Your task to perform on an android device: Clear all items from cart on newegg.com. Search for "duracell triple a" on newegg.com, select the first entry, and add it to the cart. Image 0: 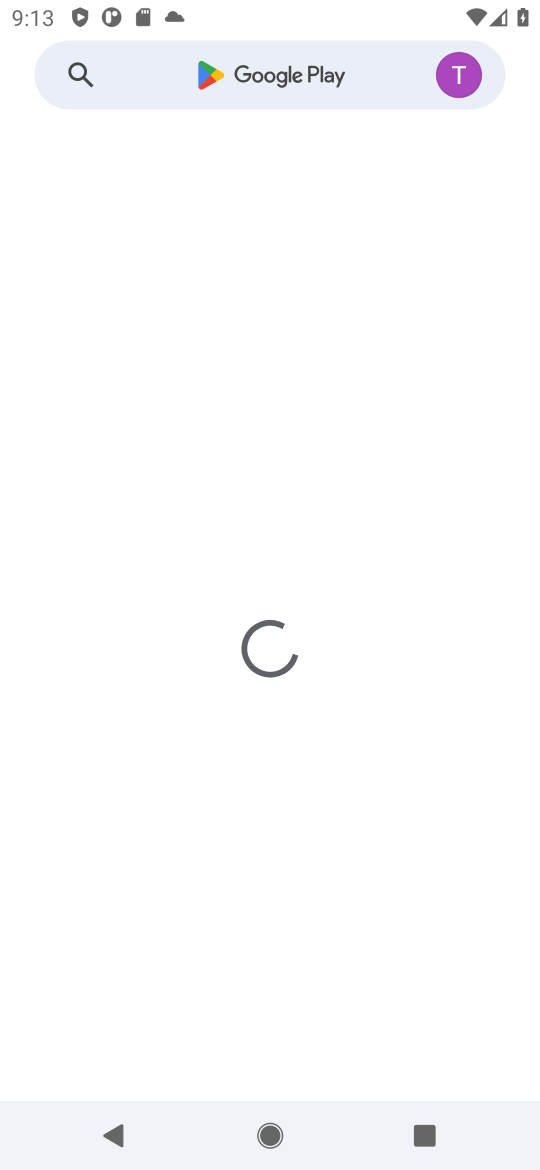
Step 0: press home button
Your task to perform on an android device: Clear all items from cart on newegg.com. Search for "duracell triple a" on newegg.com, select the first entry, and add it to the cart. Image 1: 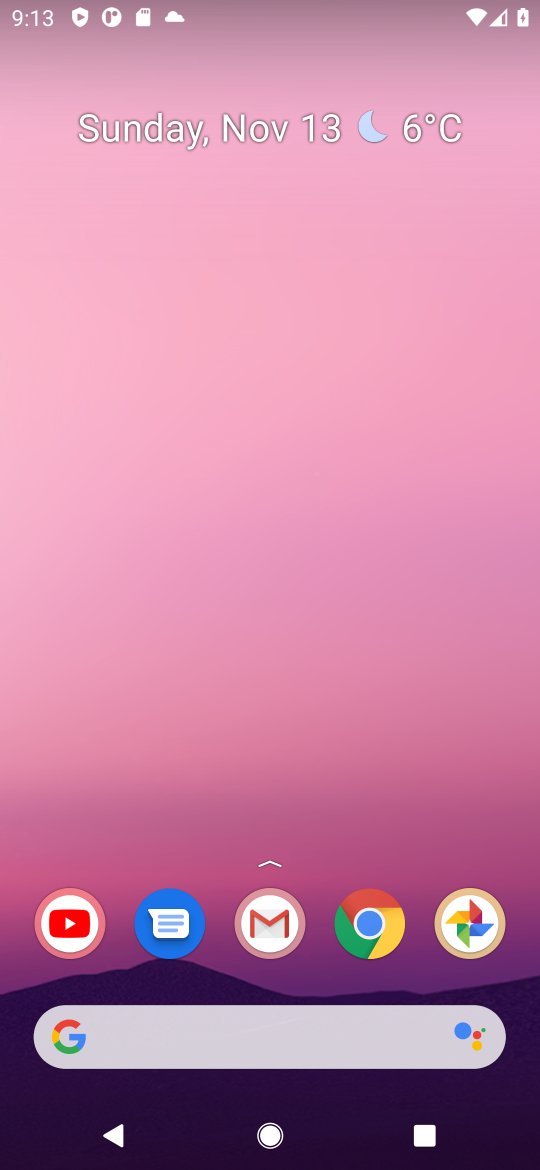
Step 1: click (358, 917)
Your task to perform on an android device: Clear all items from cart on newegg.com. Search for "duracell triple a" on newegg.com, select the first entry, and add it to the cart. Image 2: 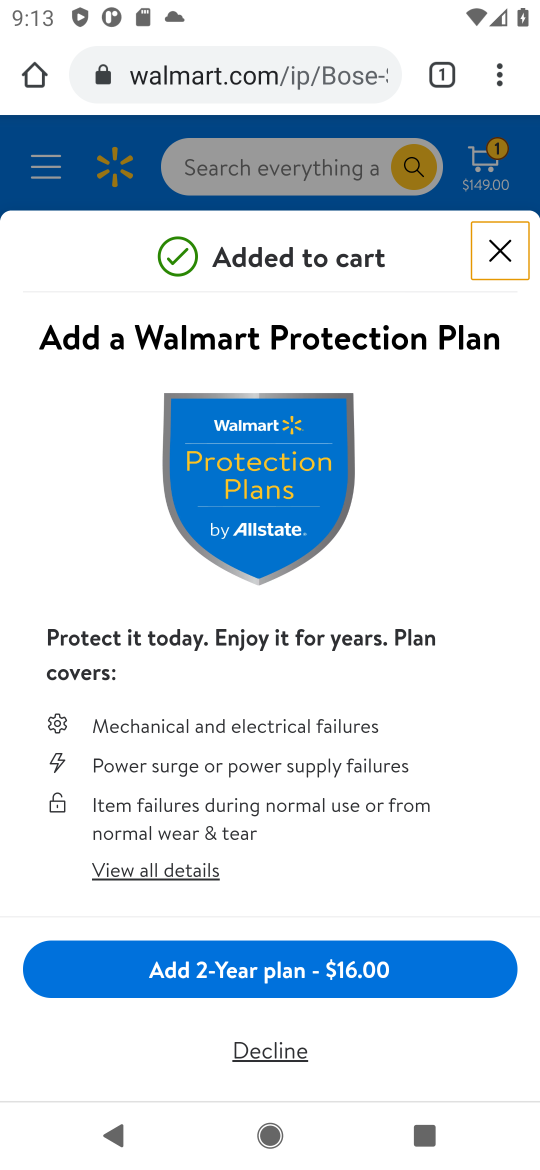
Step 2: click (313, 73)
Your task to perform on an android device: Clear all items from cart on newegg.com. Search for "duracell triple a" on newegg.com, select the first entry, and add it to the cart. Image 3: 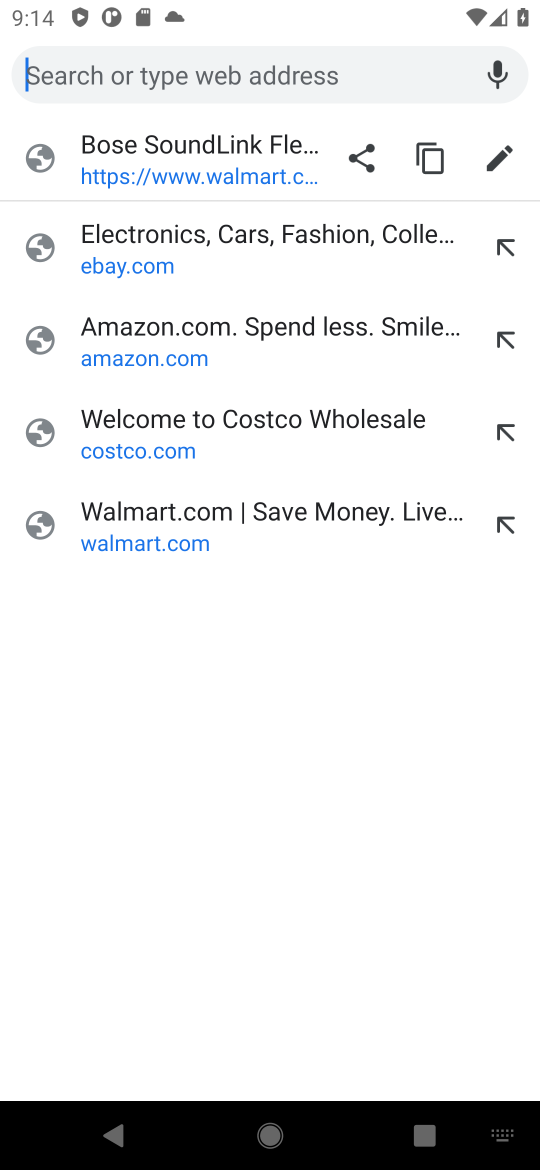
Step 3: type "newegg.com"
Your task to perform on an android device: Clear all items from cart on newegg.com. Search for "duracell triple a" on newegg.com, select the first entry, and add it to the cart. Image 4: 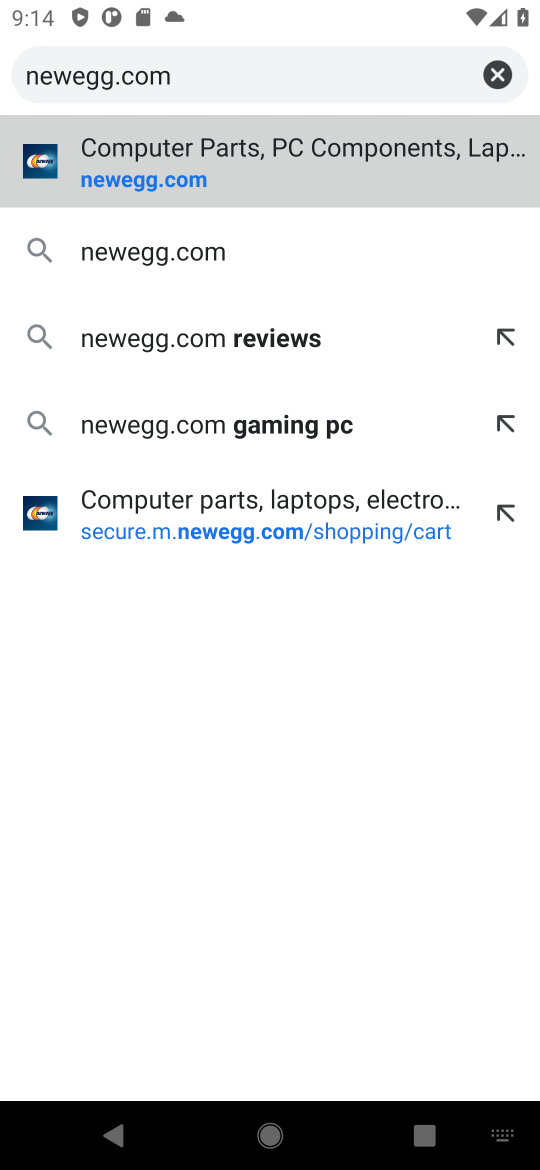
Step 4: press enter
Your task to perform on an android device: Clear all items from cart on newegg.com. Search for "duracell triple a" on newegg.com, select the first entry, and add it to the cart. Image 5: 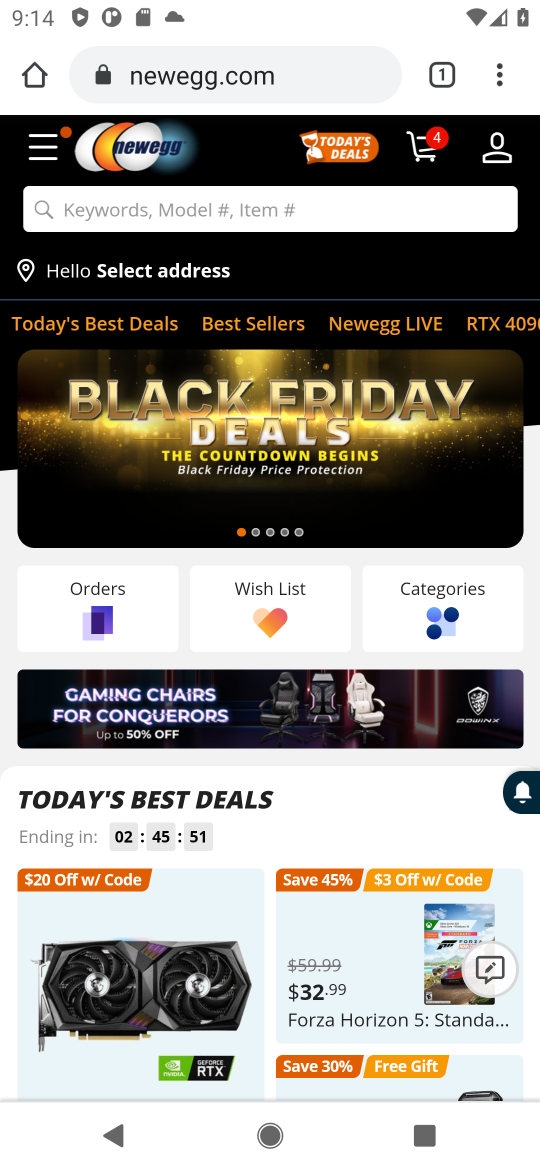
Step 5: click (420, 144)
Your task to perform on an android device: Clear all items from cart on newegg.com. Search for "duracell triple a" on newegg.com, select the first entry, and add it to the cart. Image 6: 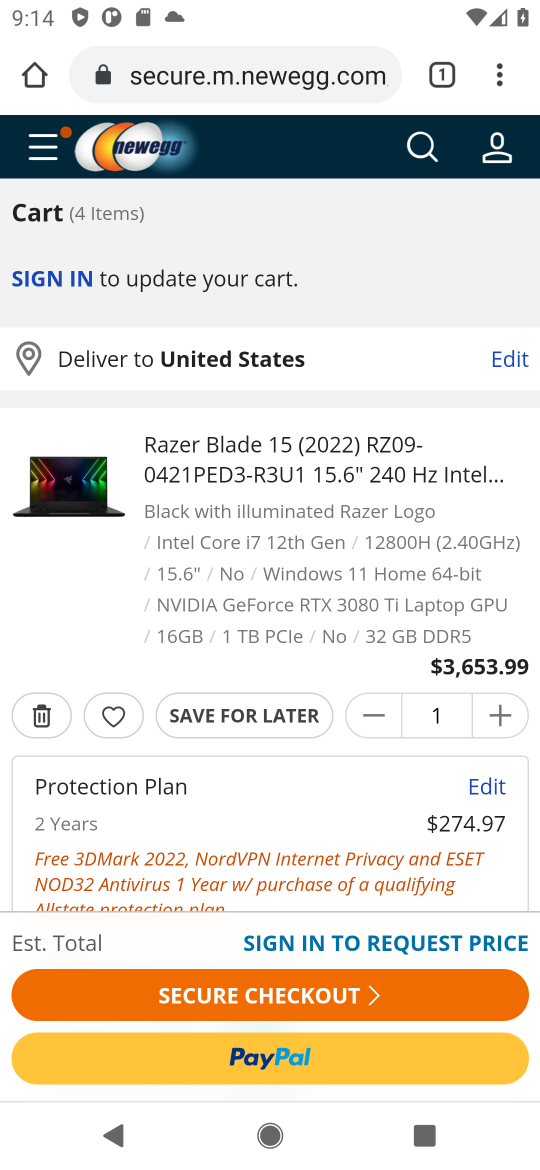
Step 6: click (40, 715)
Your task to perform on an android device: Clear all items from cart on newegg.com. Search for "duracell triple a" on newegg.com, select the first entry, and add it to the cart. Image 7: 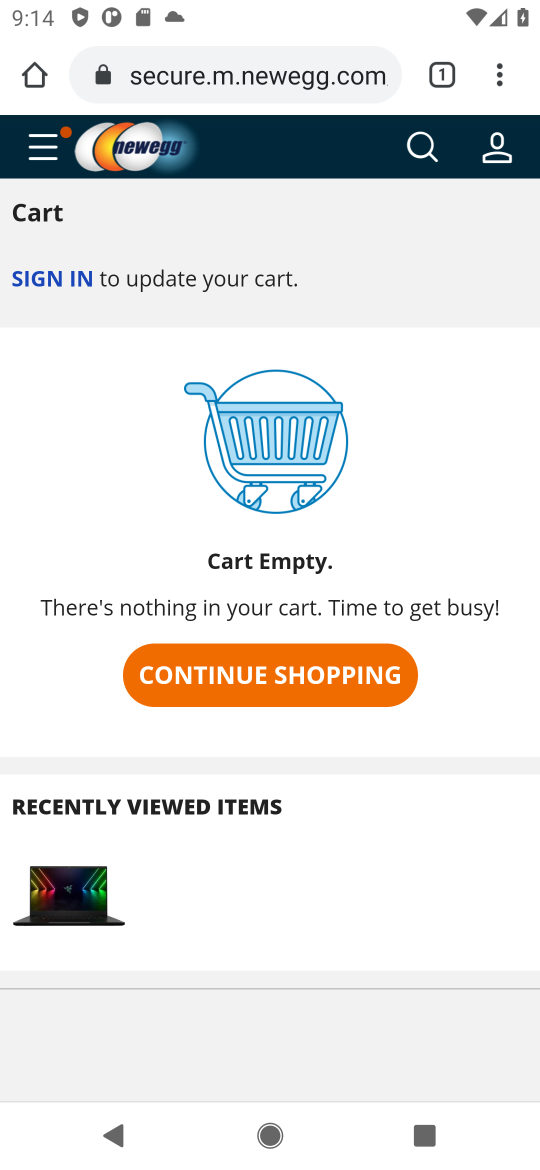
Step 7: click (427, 152)
Your task to perform on an android device: Clear all items from cart on newegg.com. Search for "duracell triple a" on newegg.com, select the first entry, and add it to the cart. Image 8: 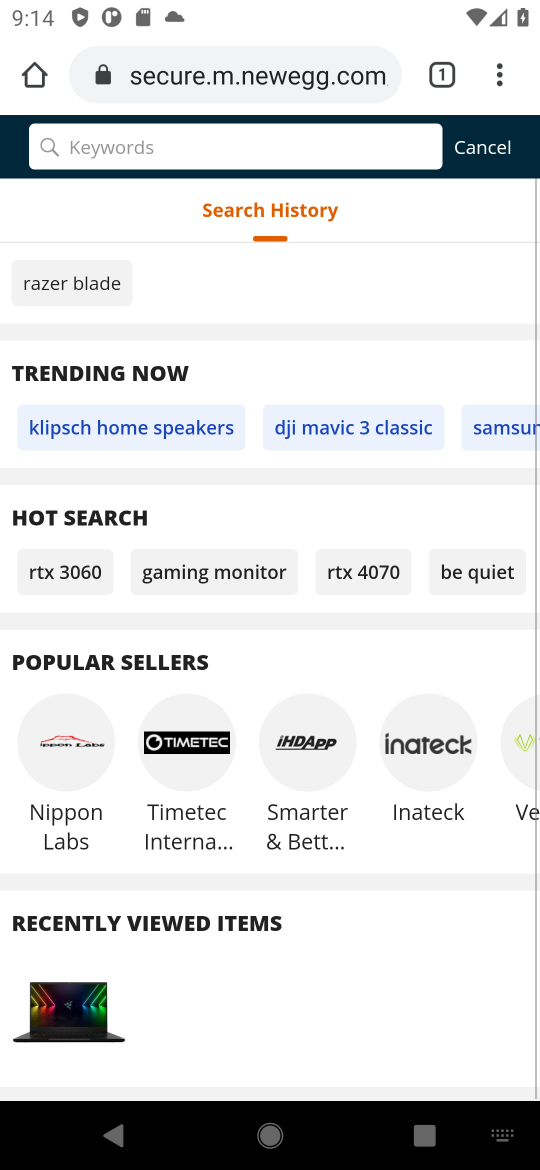
Step 8: press enter
Your task to perform on an android device: Clear all items from cart on newegg.com. Search for "duracell triple a" on newegg.com, select the first entry, and add it to the cart. Image 9: 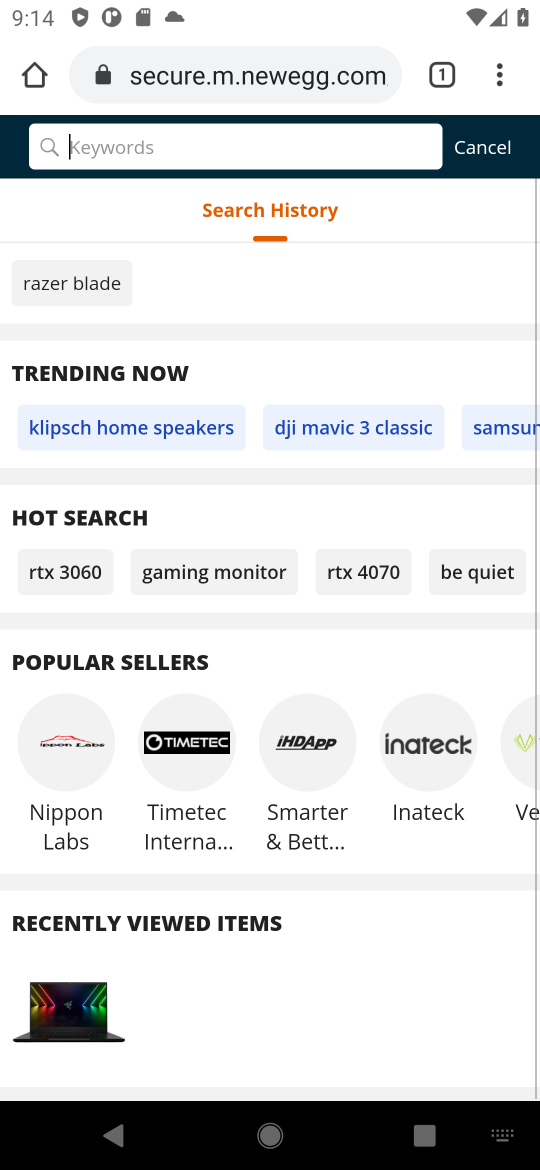
Step 9: type "duracell triple a"
Your task to perform on an android device: Clear all items from cart on newegg.com. Search for "duracell triple a" on newegg.com, select the first entry, and add it to the cart. Image 10: 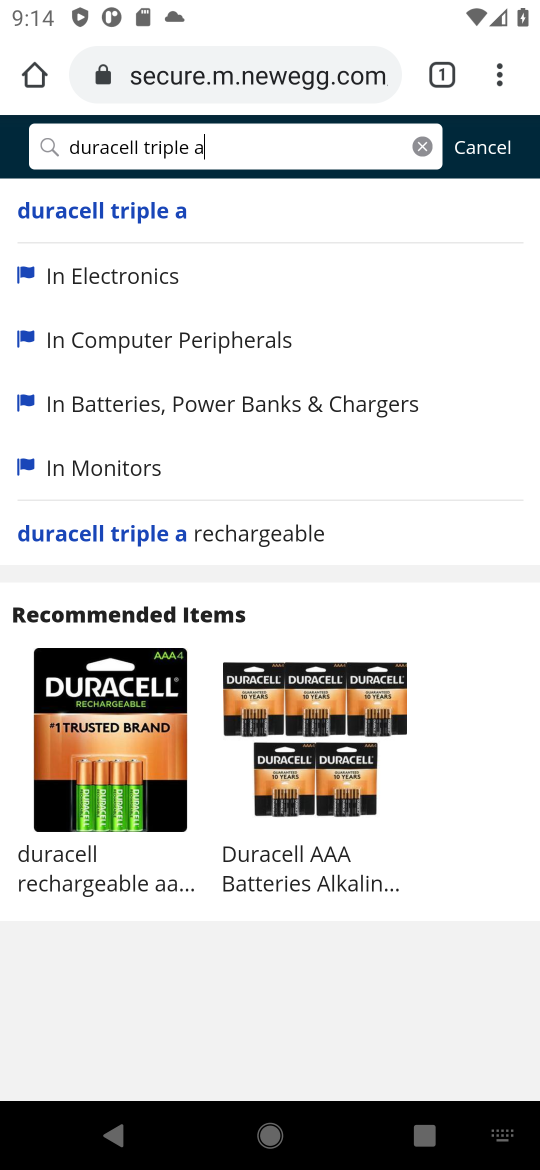
Step 10: click (335, 148)
Your task to perform on an android device: Clear all items from cart on newegg.com. Search for "duracell triple a" on newegg.com, select the first entry, and add it to the cart. Image 11: 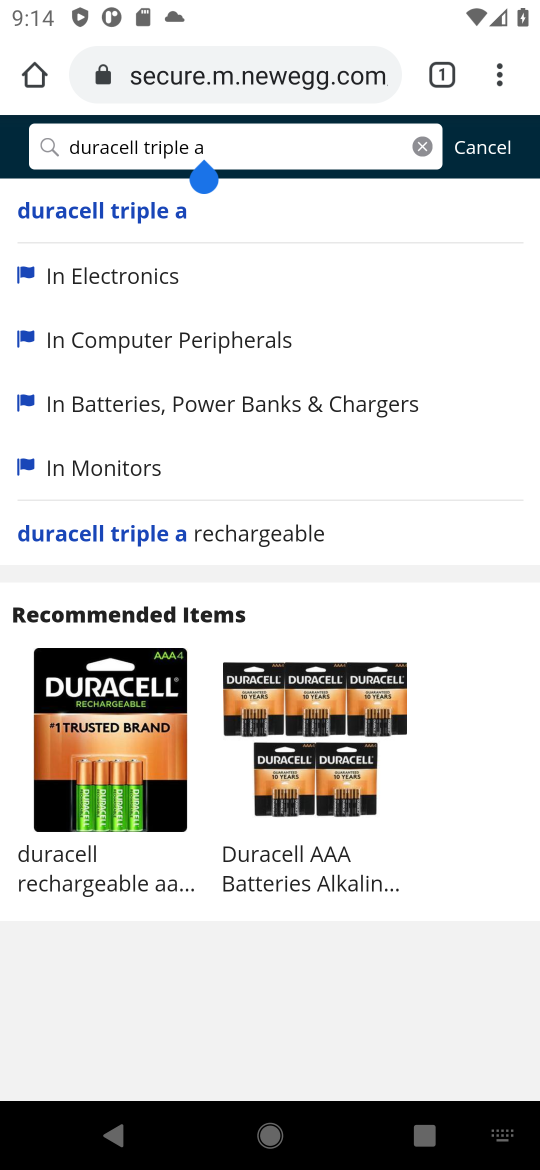
Step 11: click (103, 524)
Your task to perform on an android device: Clear all items from cart on newegg.com. Search for "duracell triple a" on newegg.com, select the first entry, and add it to the cart. Image 12: 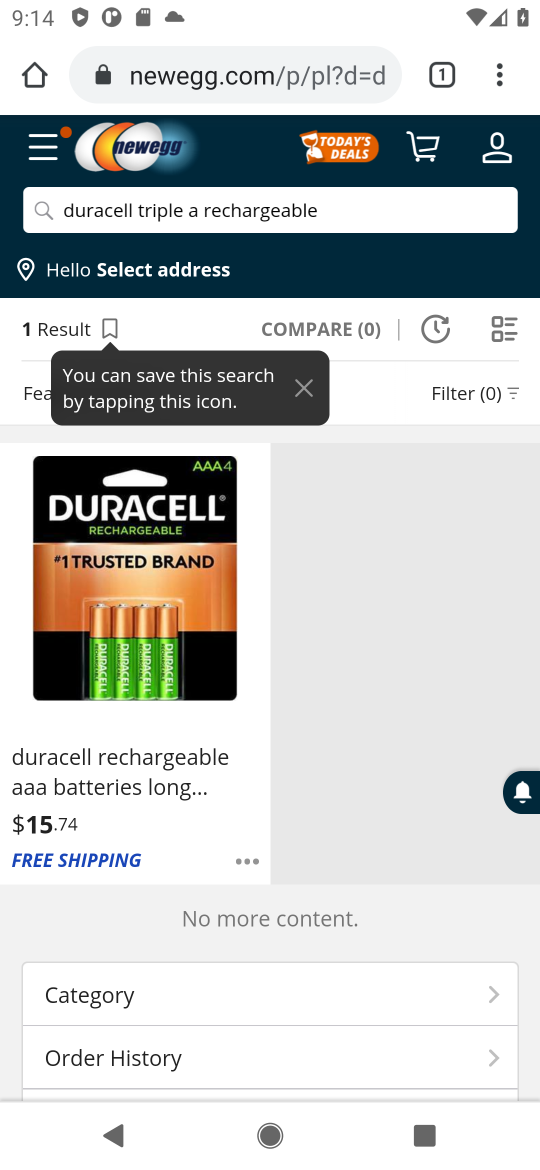
Step 12: drag from (233, 803) to (293, 349)
Your task to perform on an android device: Clear all items from cart on newegg.com. Search for "duracell triple a" on newegg.com, select the first entry, and add it to the cart. Image 13: 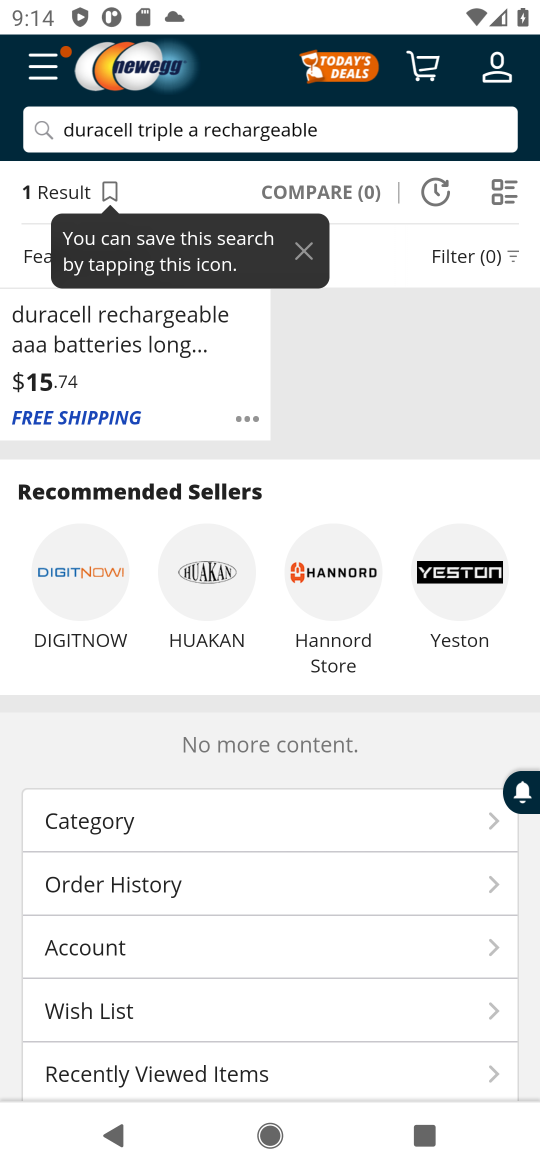
Step 13: drag from (303, 877) to (325, 1009)
Your task to perform on an android device: Clear all items from cart on newegg.com. Search for "duracell triple a" on newegg.com, select the first entry, and add it to the cart. Image 14: 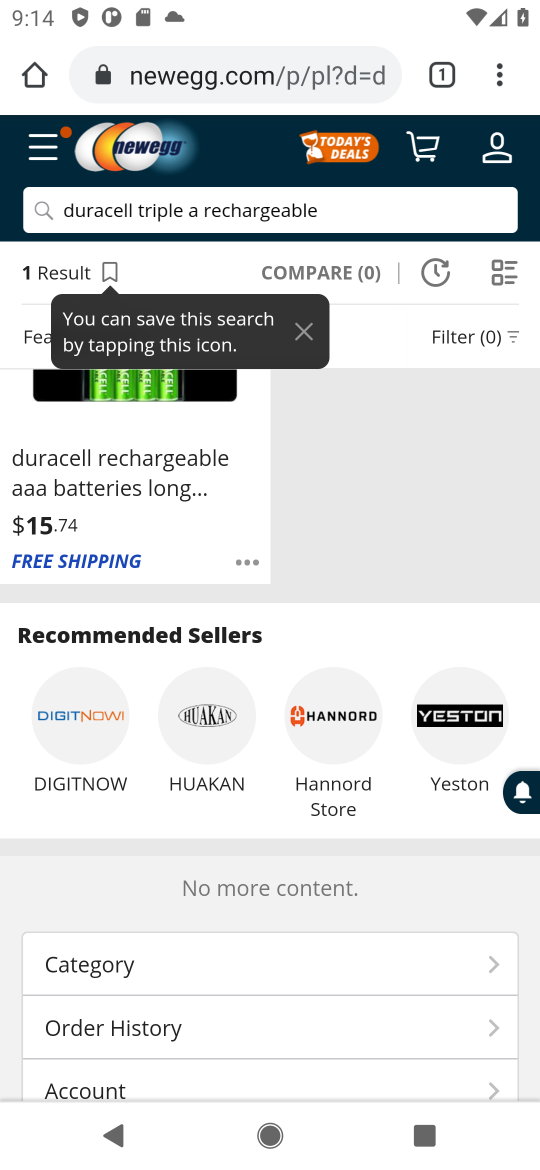
Step 14: drag from (228, 560) to (224, 1110)
Your task to perform on an android device: Clear all items from cart on newegg.com. Search for "duracell triple a" on newegg.com, select the first entry, and add it to the cart. Image 15: 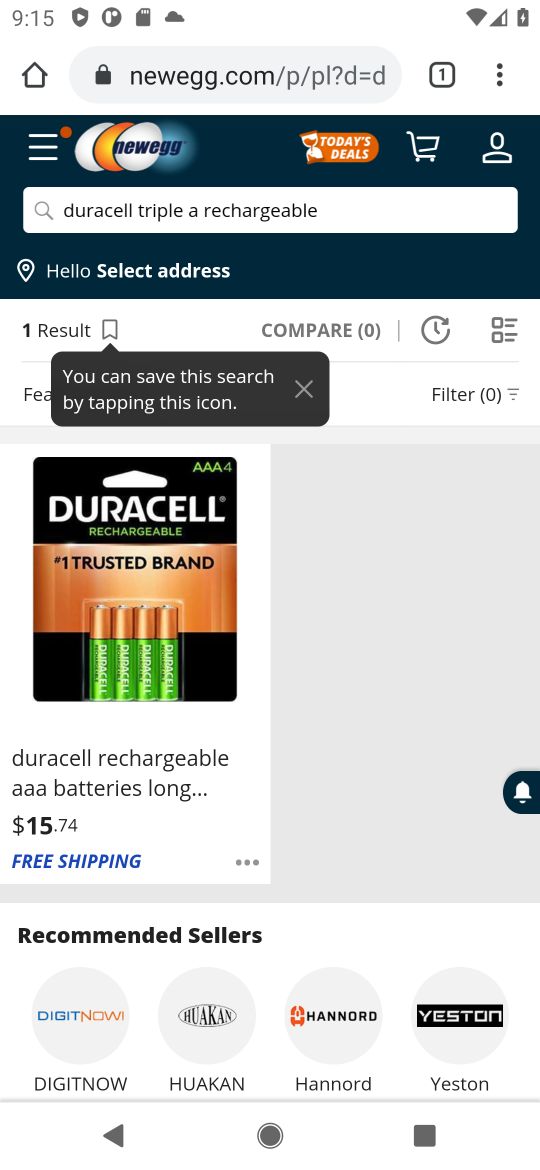
Step 15: click (407, 202)
Your task to perform on an android device: Clear all items from cart on newegg.com. Search for "duracell triple a" on newegg.com, select the first entry, and add it to the cart. Image 16: 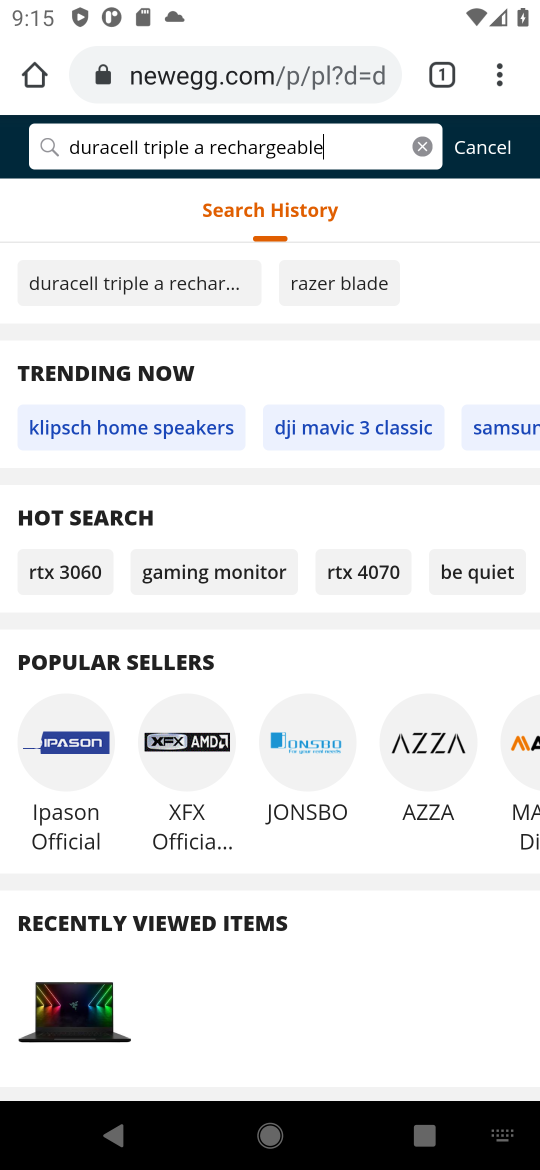
Step 16: click (424, 149)
Your task to perform on an android device: Clear all items from cart on newegg.com. Search for "duracell triple a" on newegg.com, select the first entry, and add it to the cart. Image 17: 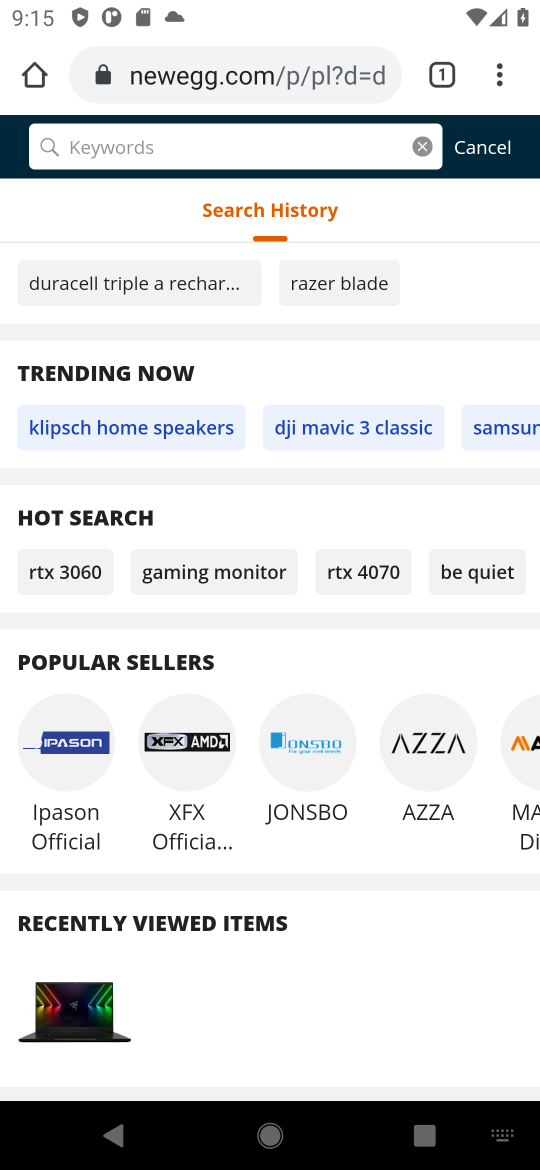
Step 17: click (364, 152)
Your task to perform on an android device: Clear all items from cart on newegg.com. Search for "duracell triple a" on newegg.com, select the first entry, and add it to the cart. Image 18: 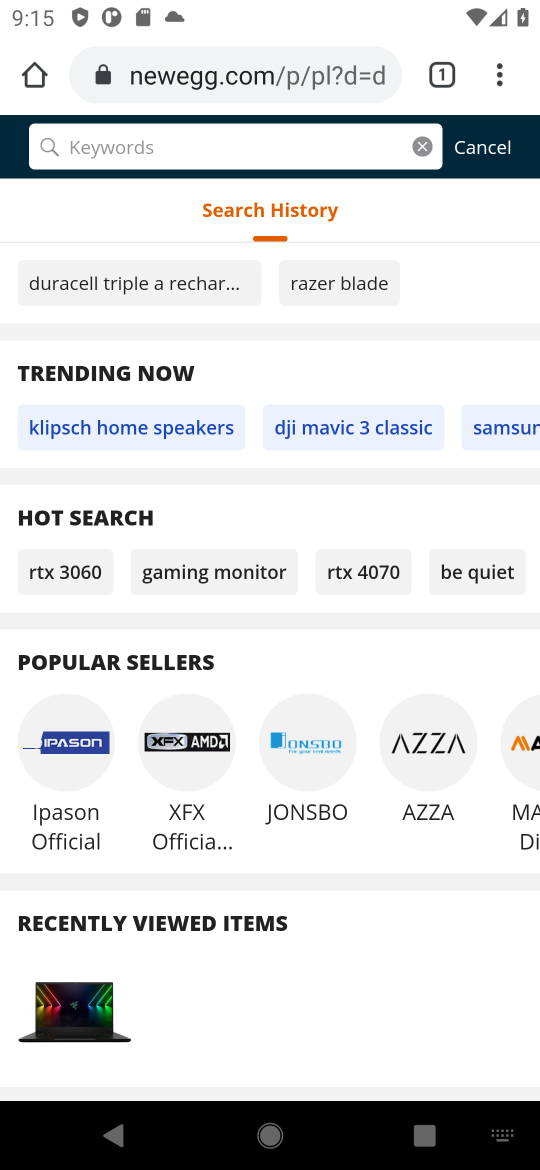
Step 18: type "duracell triple a"
Your task to perform on an android device: Clear all items from cart on newegg.com. Search for "duracell triple a" on newegg.com, select the first entry, and add it to the cart. Image 19: 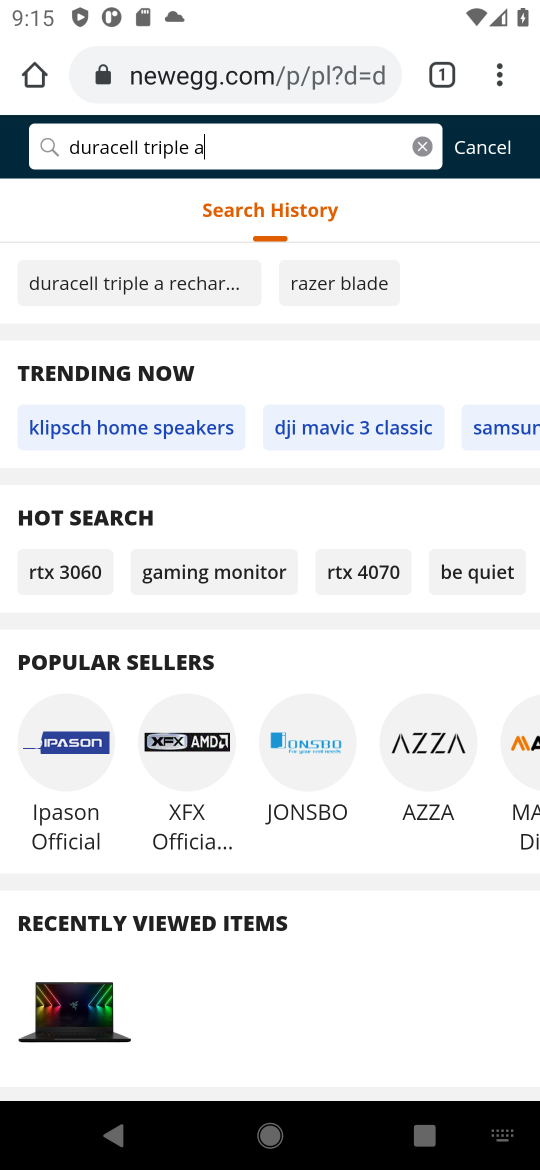
Step 19: press enter
Your task to perform on an android device: Clear all items from cart on newegg.com. Search for "duracell triple a" on newegg.com, select the first entry, and add it to the cart. Image 20: 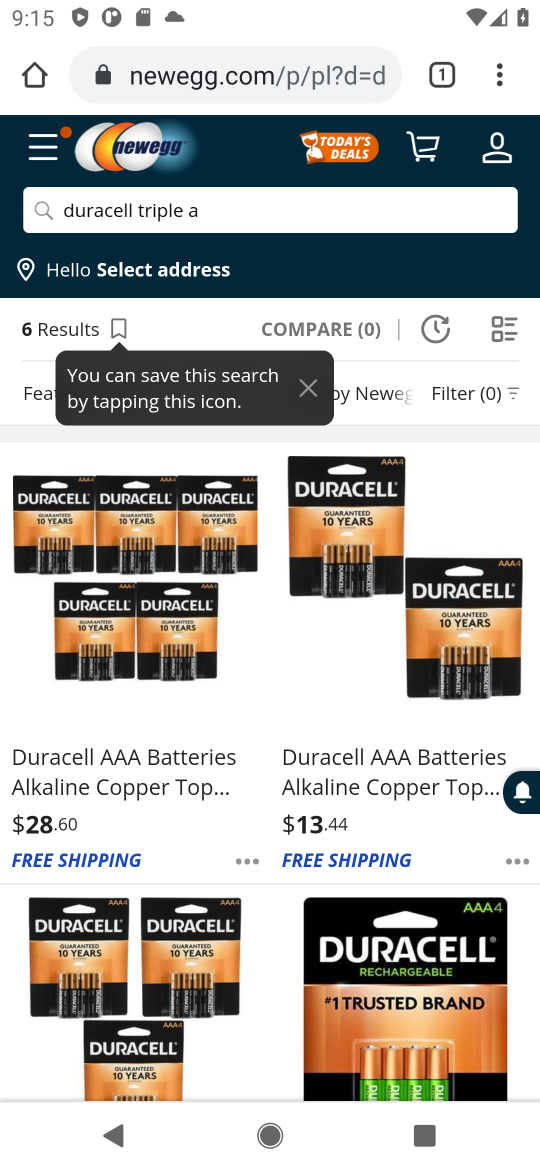
Step 20: click (449, 222)
Your task to perform on an android device: Clear all items from cart on newegg.com. Search for "duracell triple a" on newegg.com, select the first entry, and add it to the cart. Image 21: 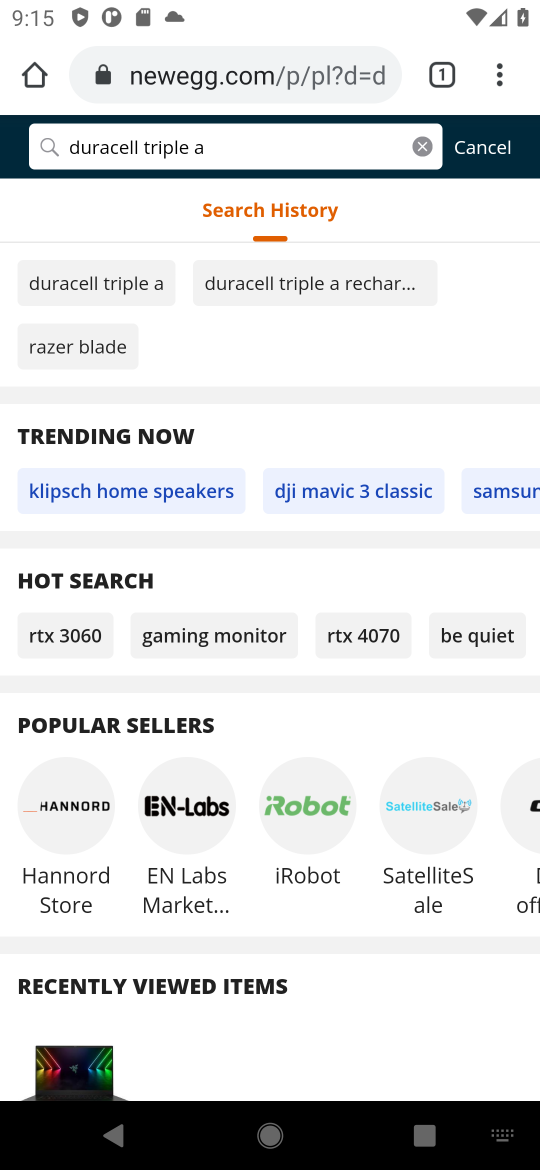
Step 21: task complete